Your task to perform on an android device: turn off sleep mode Image 0: 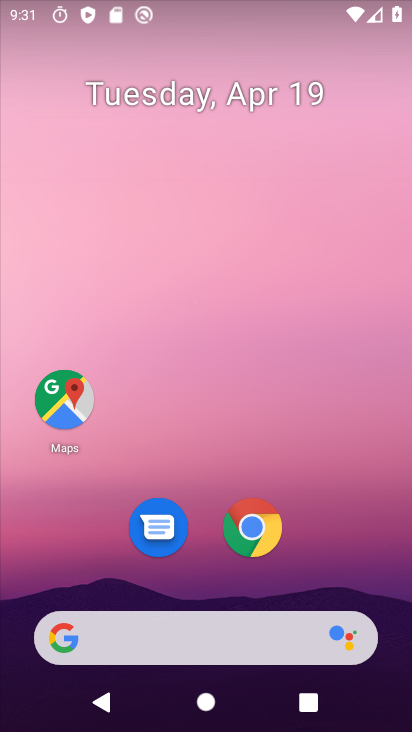
Step 0: press home button
Your task to perform on an android device: turn off sleep mode Image 1: 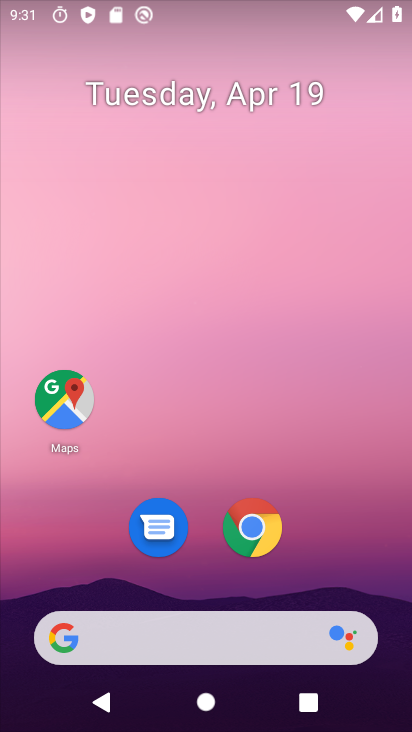
Step 1: drag from (236, 680) to (223, 127)
Your task to perform on an android device: turn off sleep mode Image 2: 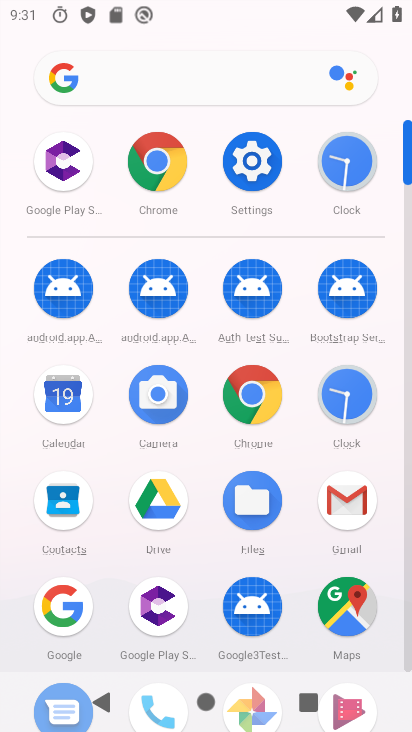
Step 2: click (260, 188)
Your task to perform on an android device: turn off sleep mode Image 3: 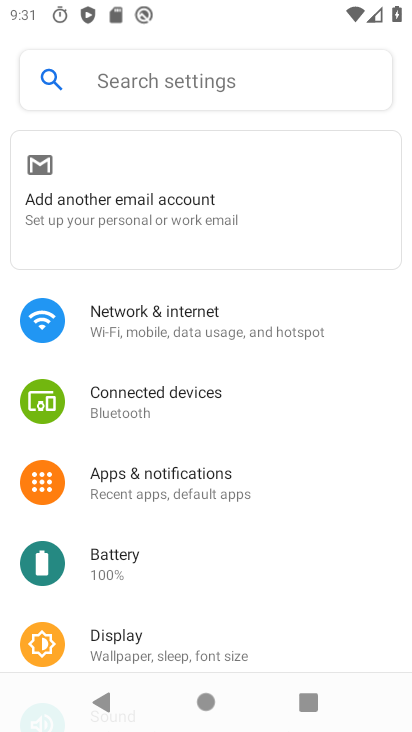
Step 3: click (166, 79)
Your task to perform on an android device: turn off sleep mode Image 4: 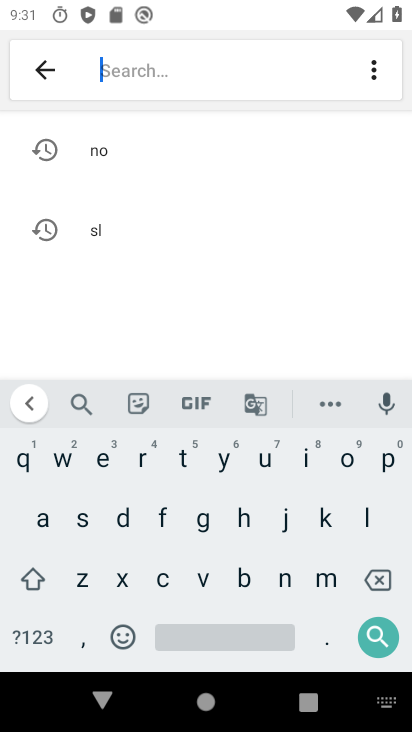
Step 4: click (93, 236)
Your task to perform on an android device: turn off sleep mode Image 5: 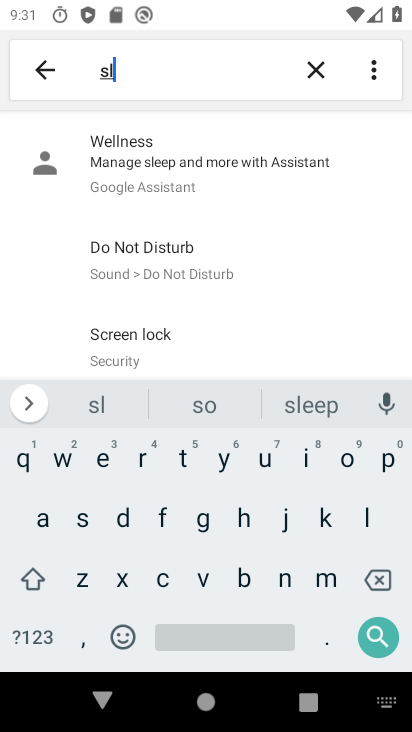
Step 5: click (166, 262)
Your task to perform on an android device: turn off sleep mode Image 6: 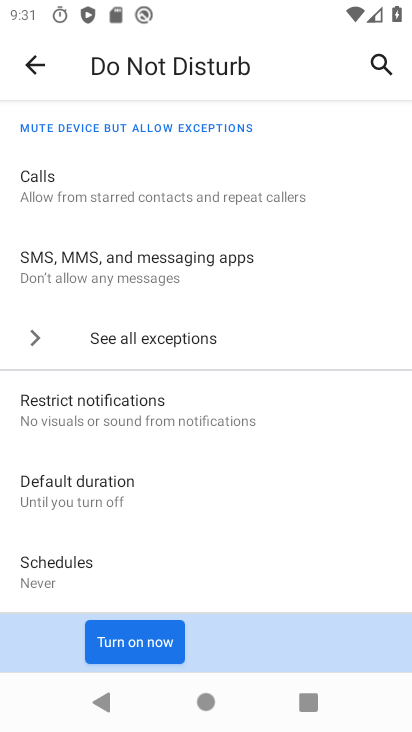
Step 6: click (106, 652)
Your task to perform on an android device: turn off sleep mode Image 7: 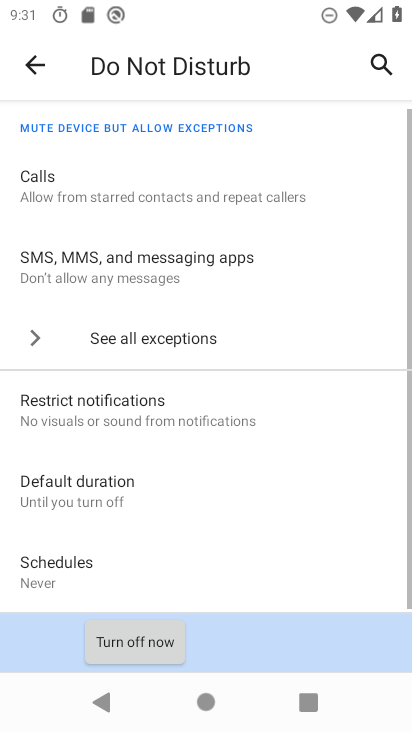
Step 7: click (118, 638)
Your task to perform on an android device: turn off sleep mode Image 8: 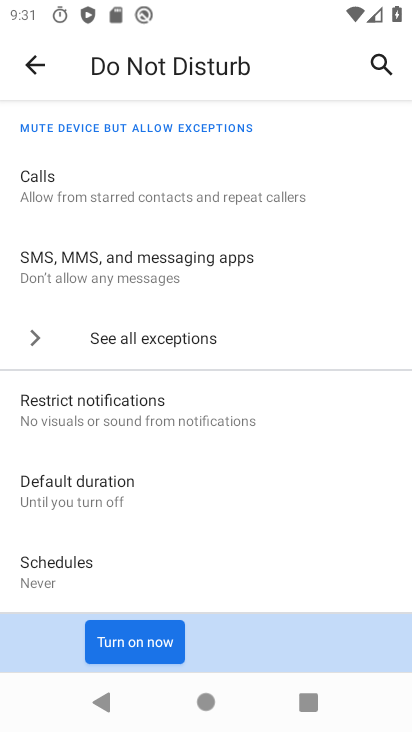
Step 8: task complete